Your task to perform on an android device: Open Android settings Image 0: 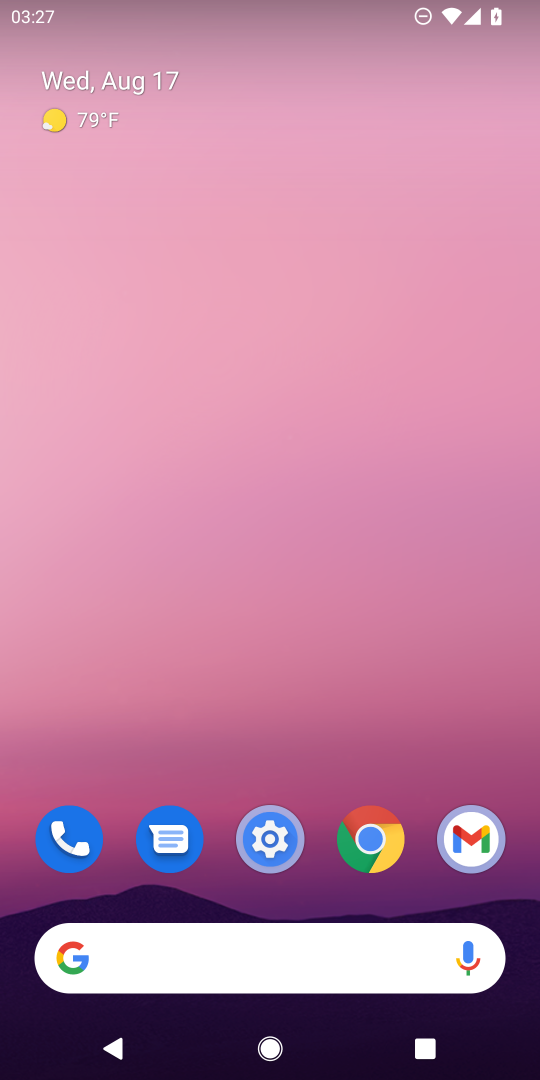
Step 0: drag from (332, 898) to (157, 15)
Your task to perform on an android device: Open Android settings Image 1: 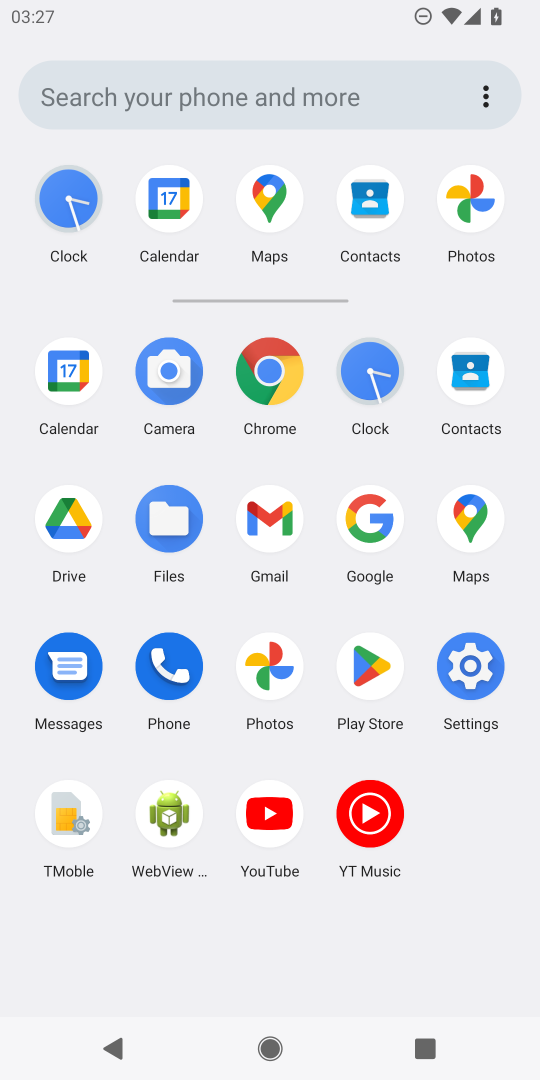
Step 1: click (470, 669)
Your task to perform on an android device: Open Android settings Image 2: 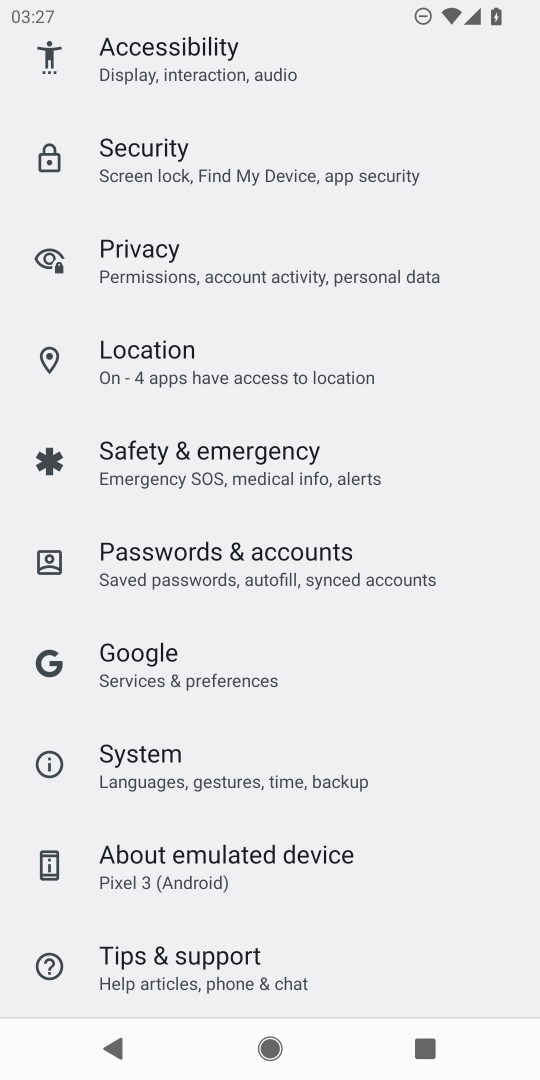
Step 2: task complete